Your task to perform on an android device: turn off data saver in the chrome app Image 0: 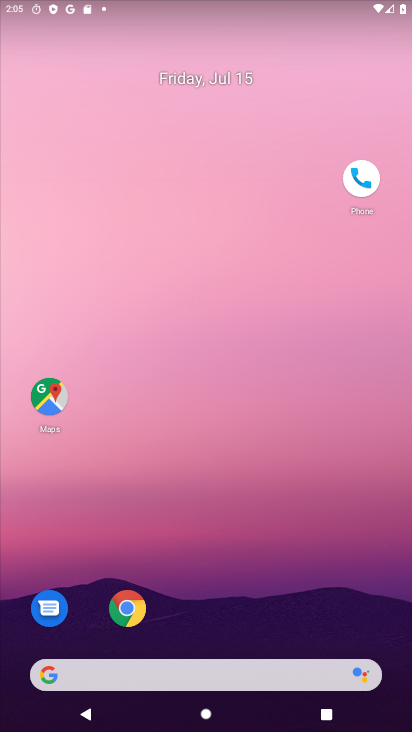
Step 0: drag from (199, 636) to (224, 6)
Your task to perform on an android device: turn off data saver in the chrome app Image 1: 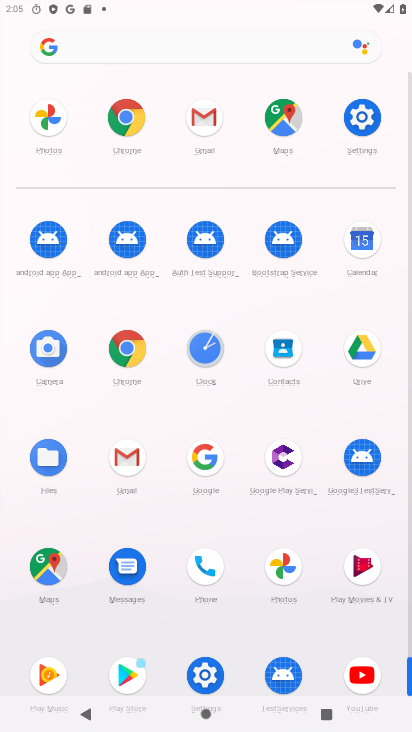
Step 1: click (118, 348)
Your task to perform on an android device: turn off data saver in the chrome app Image 2: 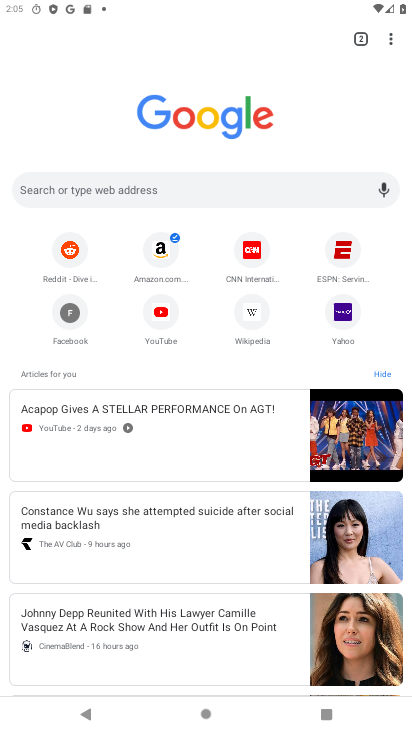
Step 2: drag from (385, 33) to (270, 330)
Your task to perform on an android device: turn off data saver in the chrome app Image 3: 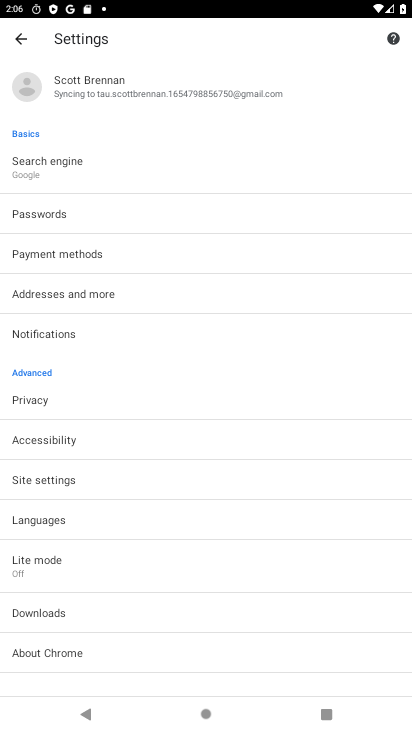
Step 3: click (59, 570)
Your task to perform on an android device: turn off data saver in the chrome app Image 4: 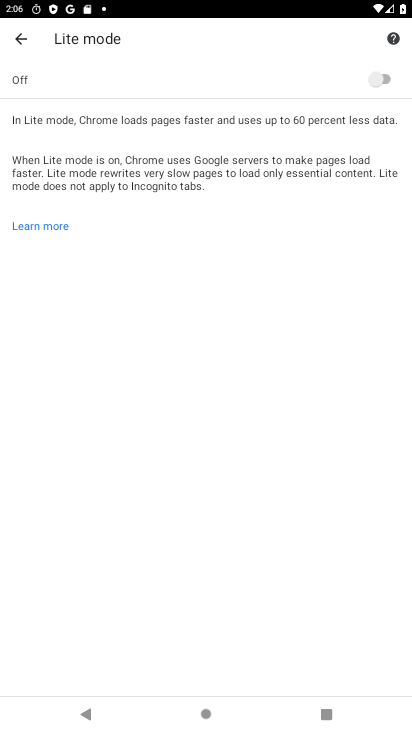
Step 4: task complete